Your task to perform on an android device: When is my next meeting? Image 0: 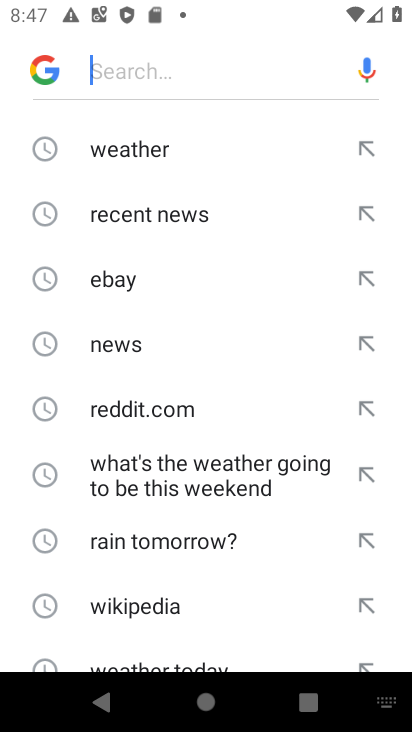
Step 0: press home button
Your task to perform on an android device: When is my next meeting? Image 1: 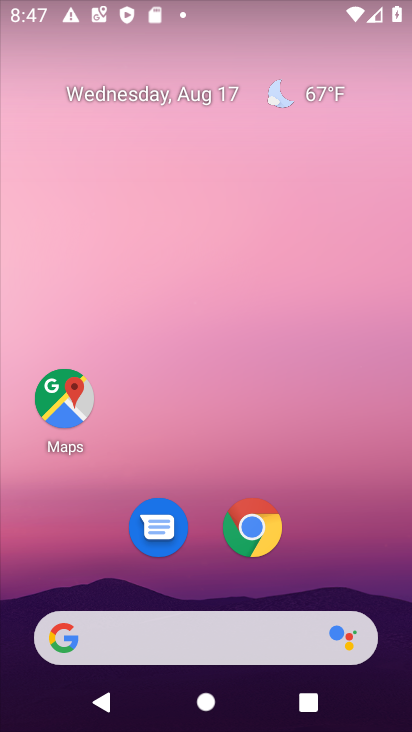
Step 1: click (83, 97)
Your task to perform on an android device: When is my next meeting? Image 2: 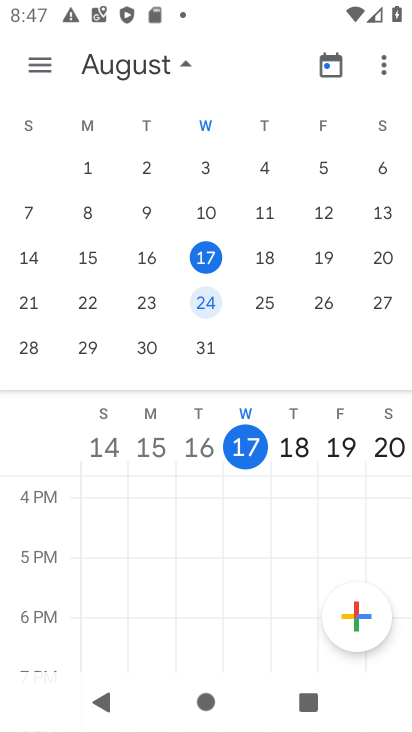
Step 2: task complete